Your task to perform on an android device: turn on the 24-hour format for clock Image 0: 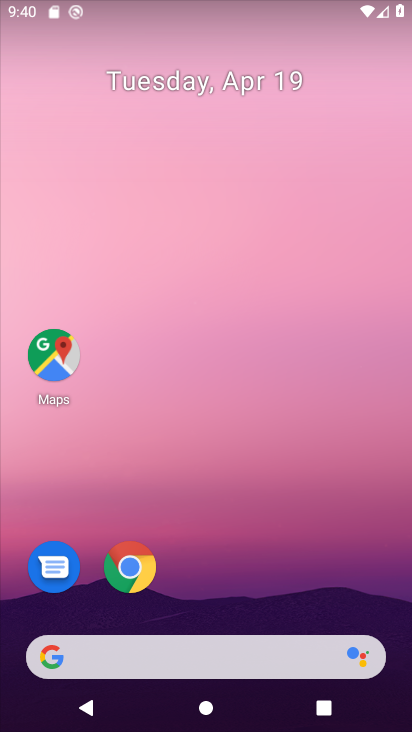
Step 0: drag from (242, 595) to (271, 12)
Your task to perform on an android device: turn on the 24-hour format for clock Image 1: 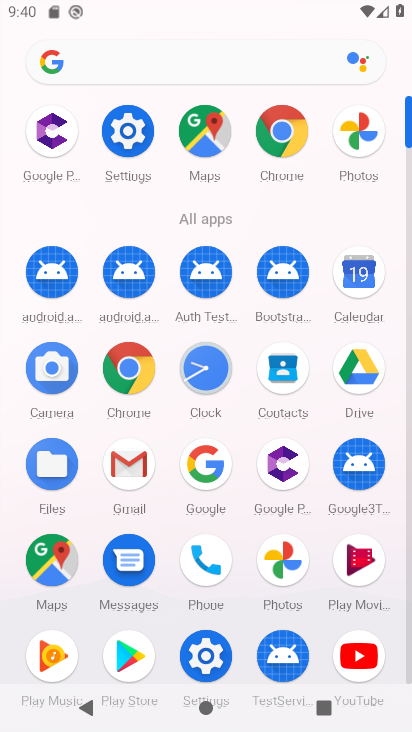
Step 1: click (203, 369)
Your task to perform on an android device: turn on the 24-hour format for clock Image 2: 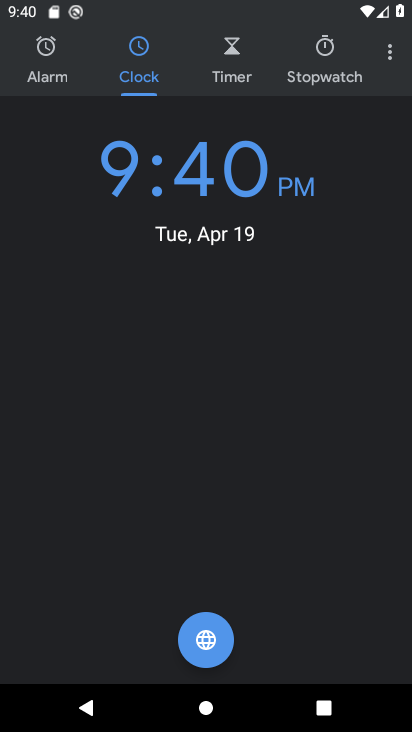
Step 2: click (386, 53)
Your task to perform on an android device: turn on the 24-hour format for clock Image 3: 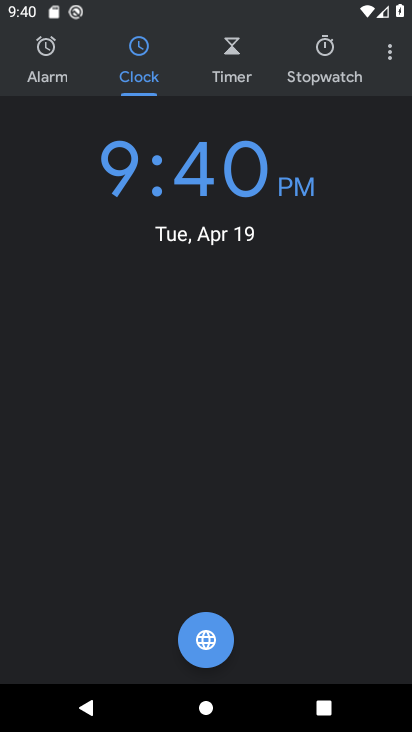
Step 3: click (384, 54)
Your task to perform on an android device: turn on the 24-hour format for clock Image 4: 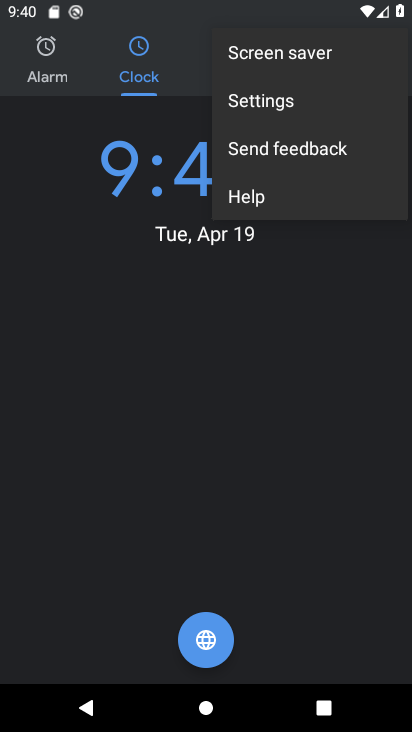
Step 4: click (367, 98)
Your task to perform on an android device: turn on the 24-hour format for clock Image 5: 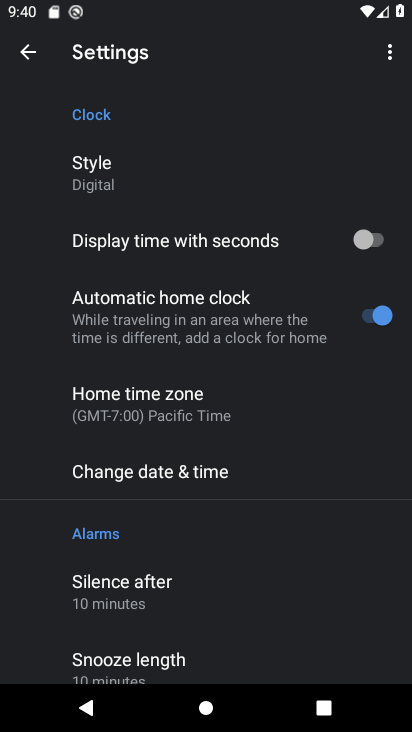
Step 5: click (175, 479)
Your task to perform on an android device: turn on the 24-hour format for clock Image 6: 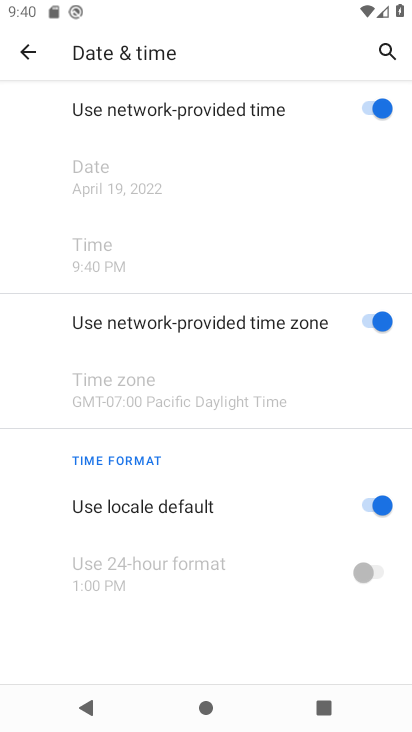
Step 6: click (378, 508)
Your task to perform on an android device: turn on the 24-hour format for clock Image 7: 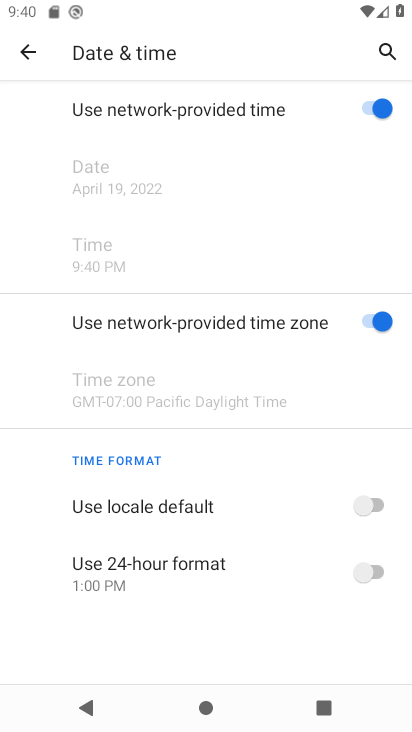
Step 7: click (374, 564)
Your task to perform on an android device: turn on the 24-hour format for clock Image 8: 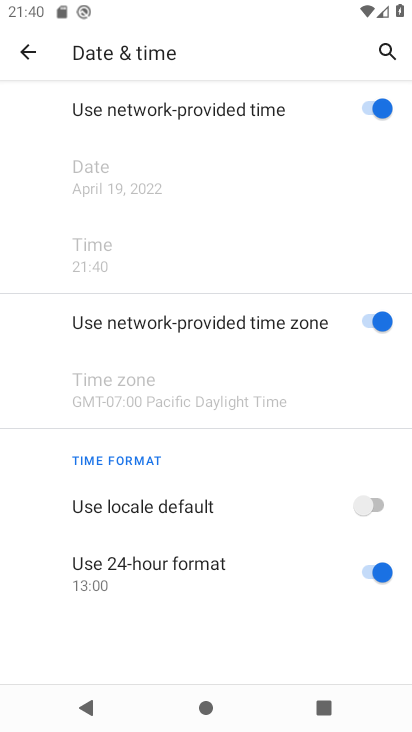
Step 8: task complete